Your task to perform on an android device: Open CNN.com Image 0: 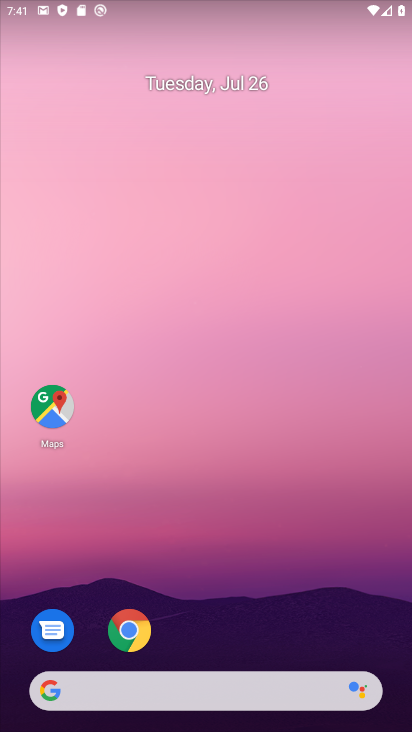
Step 0: click (297, 683)
Your task to perform on an android device: Open CNN.com Image 1: 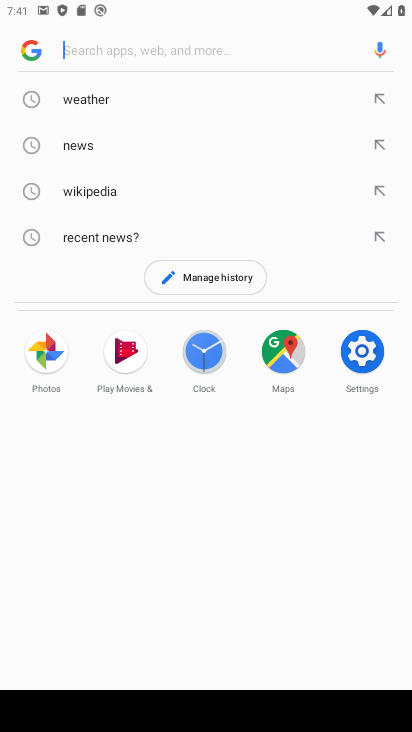
Step 1: type "cnn.com"
Your task to perform on an android device: Open CNN.com Image 2: 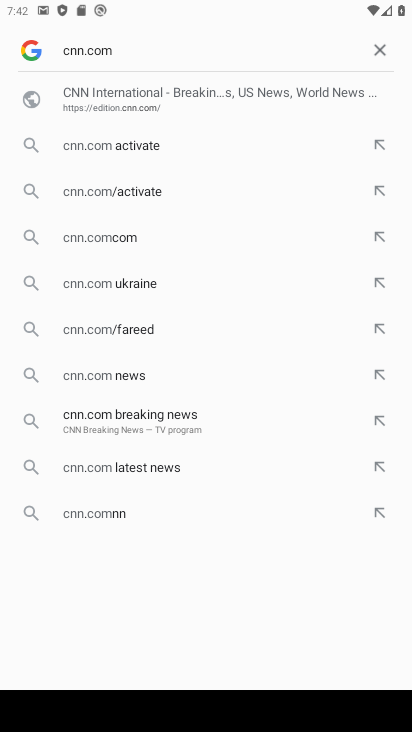
Step 2: click (147, 91)
Your task to perform on an android device: Open CNN.com Image 3: 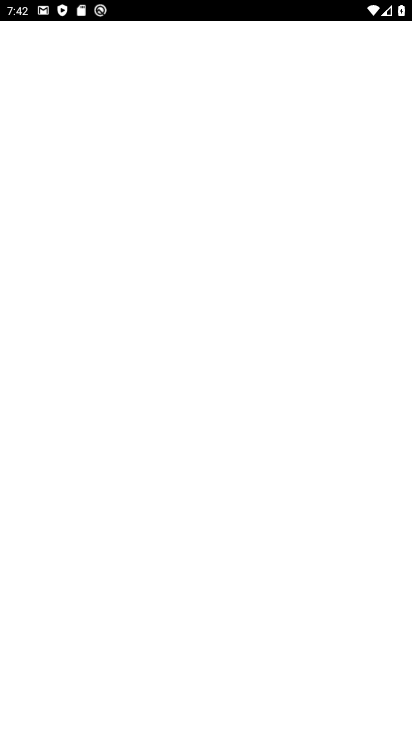
Step 3: task complete